Your task to perform on an android device: Go to network settings Image 0: 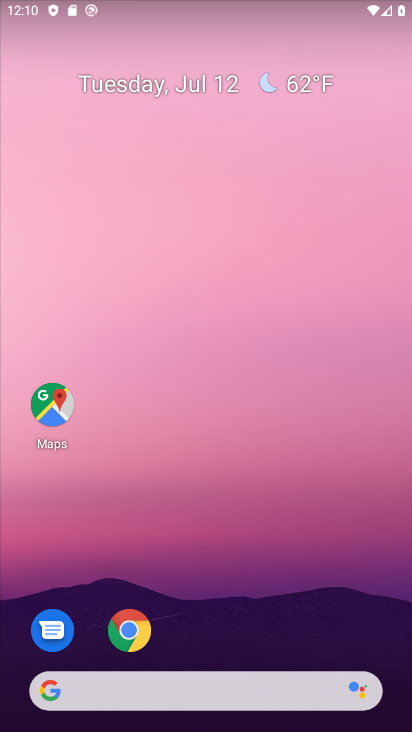
Step 0: drag from (258, 542) to (258, 110)
Your task to perform on an android device: Go to network settings Image 1: 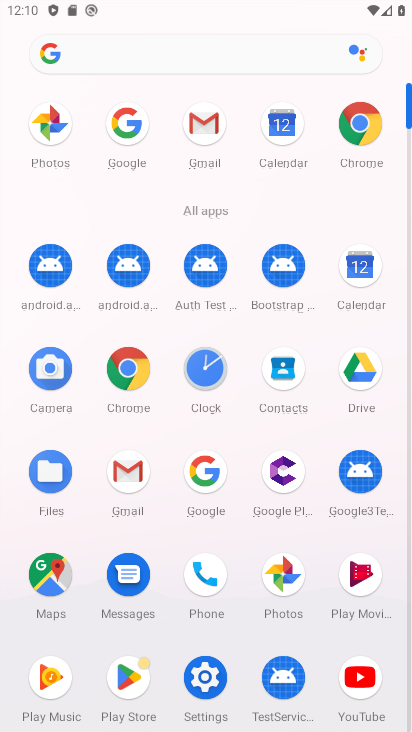
Step 1: click (211, 682)
Your task to perform on an android device: Go to network settings Image 2: 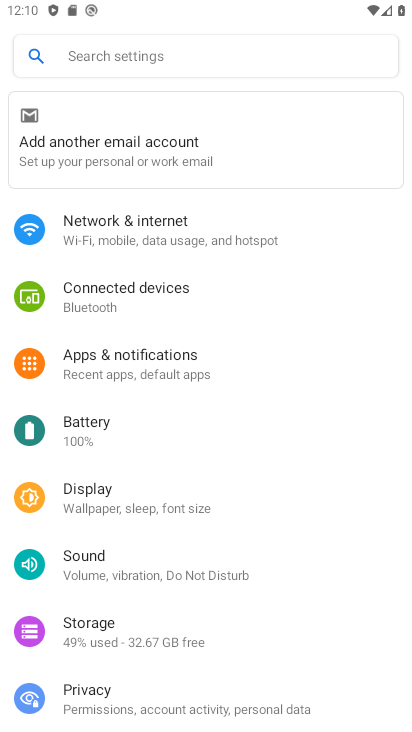
Step 2: click (125, 232)
Your task to perform on an android device: Go to network settings Image 3: 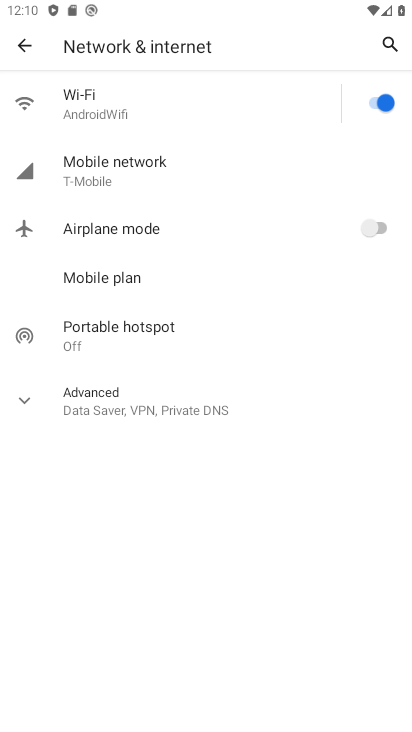
Step 3: click (121, 179)
Your task to perform on an android device: Go to network settings Image 4: 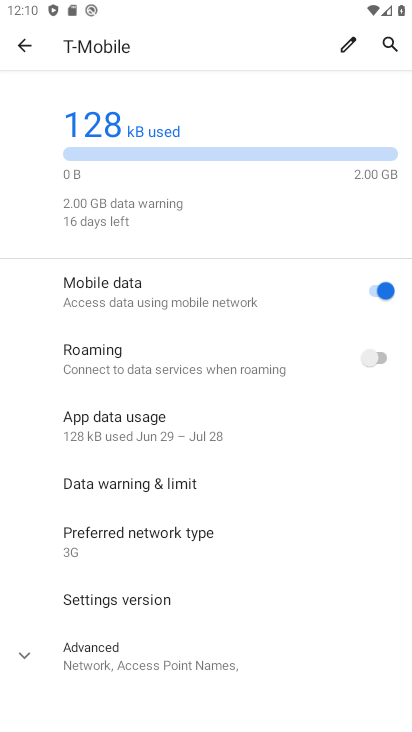
Step 4: task complete